Your task to perform on an android device: change the clock display to analog Image 0: 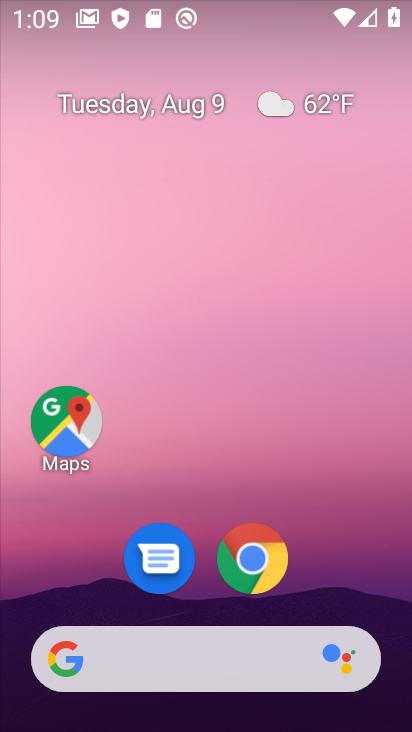
Step 0: drag from (369, 542) to (317, 56)
Your task to perform on an android device: change the clock display to analog Image 1: 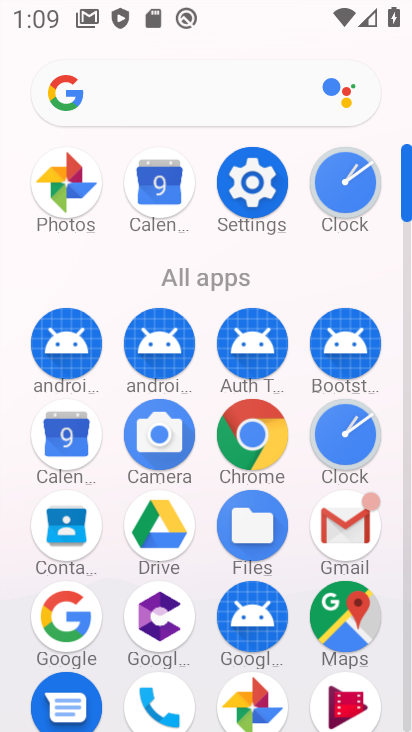
Step 1: click (334, 418)
Your task to perform on an android device: change the clock display to analog Image 2: 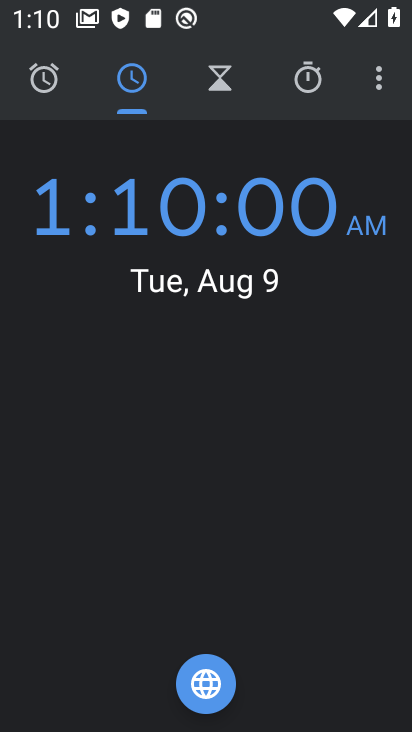
Step 2: click (380, 82)
Your task to perform on an android device: change the clock display to analog Image 3: 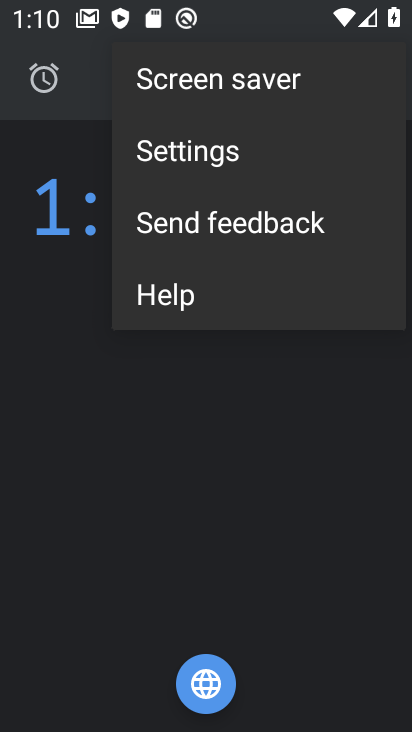
Step 3: click (212, 150)
Your task to perform on an android device: change the clock display to analog Image 4: 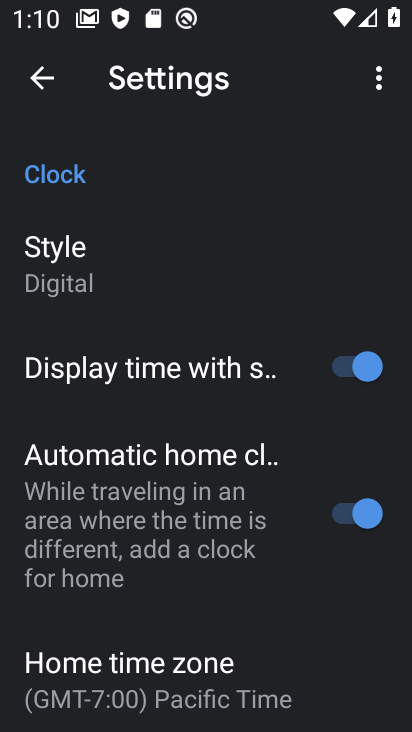
Step 4: click (86, 244)
Your task to perform on an android device: change the clock display to analog Image 5: 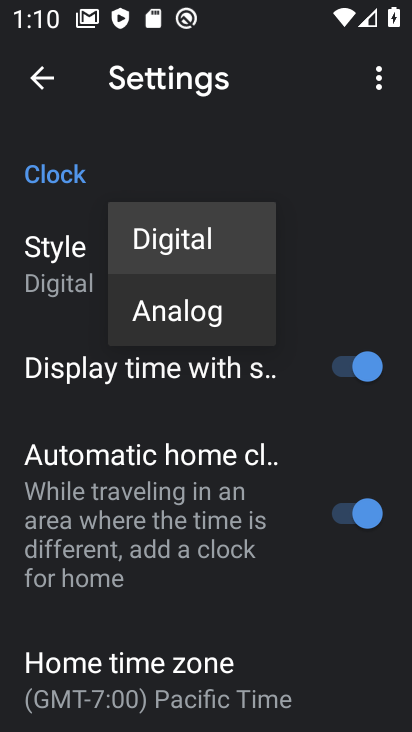
Step 5: click (158, 302)
Your task to perform on an android device: change the clock display to analog Image 6: 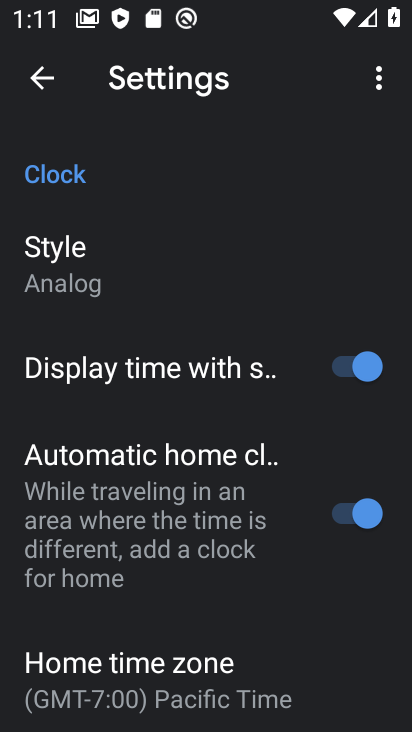
Step 6: task complete